Your task to perform on an android device: add a label to a message in the gmail app Image 0: 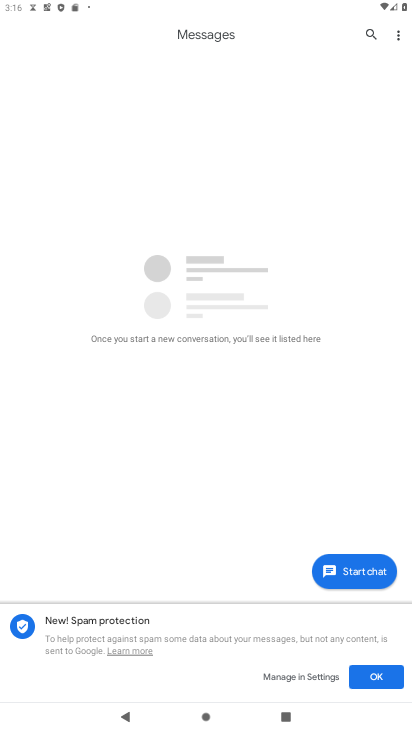
Step 0: press home button
Your task to perform on an android device: add a label to a message in the gmail app Image 1: 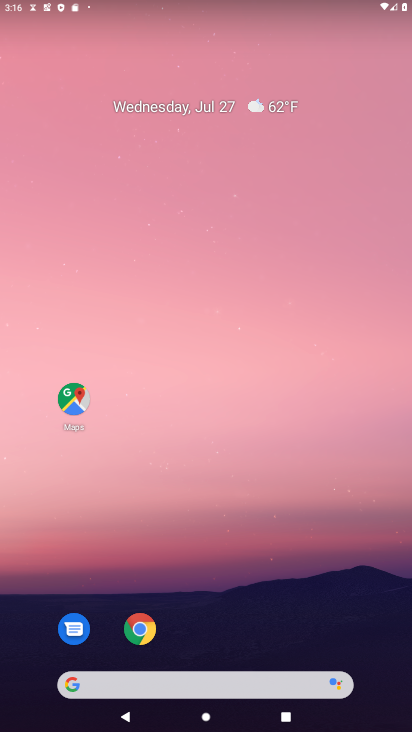
Step 1: drag from (212, 685) to (301, 49)
Your task to perform on an android device: add a label to a message in the gmail app Image 2: 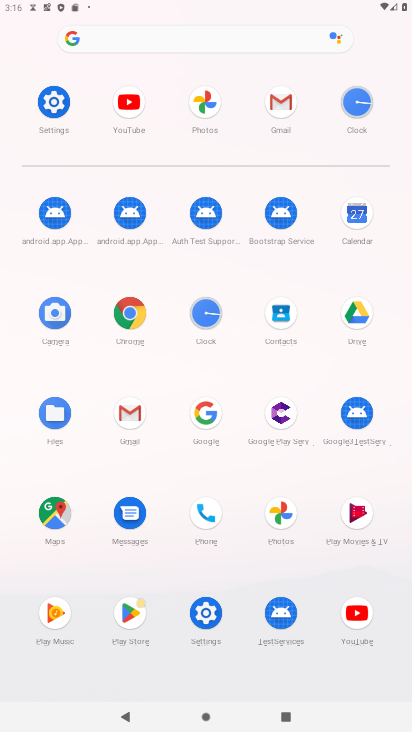
Step 2: click (281, 102)
Your task to perform on an android device: add a label to a message in the gmail app Image 3: 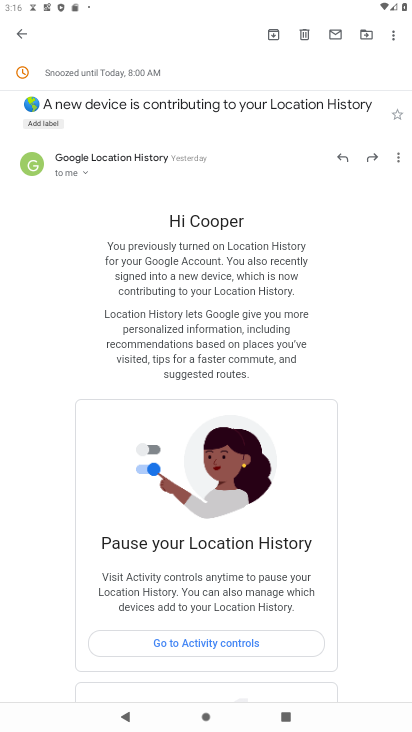
Step 3: task complete